Your task to perform on an android device: Open Youtube and go to the subscriptions tab Image 0: 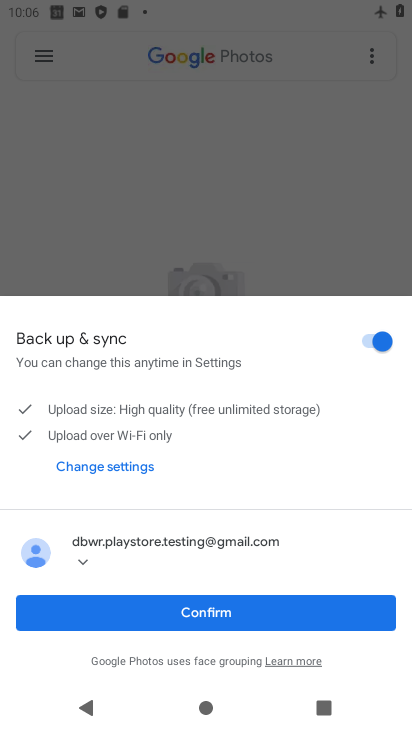
Step 0: press home button
Your task to perform on an android device: Open Youtube and go to the subscriptions tab Image 1: 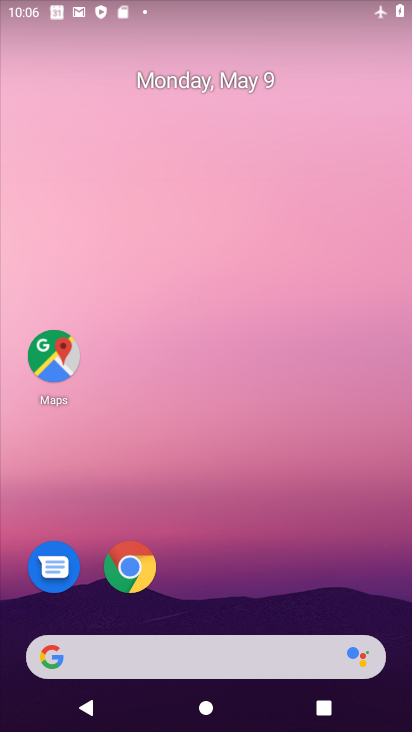
Step 1: drag from (200, 590) to (207, 193)
Your task to perform on an android device: Open Youtube and go to the subscriptions tab Image 2: 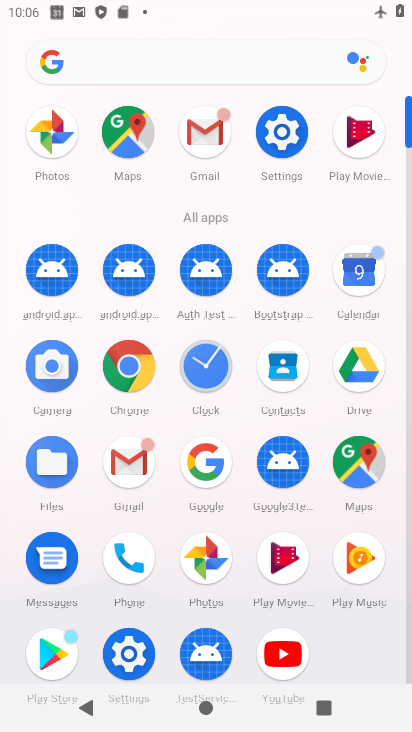
Step 2: click (279, 626)
Your task to perform on an android device: Open Youtube and go to the subscriptions tab Image 3: 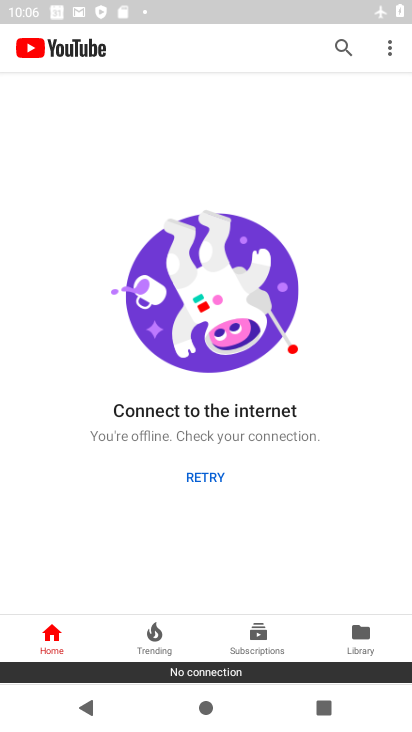
Step 3: click (268, 637)
Your task to perform on an android device: Open Youtube and go to the subscriptions tab Image 4: 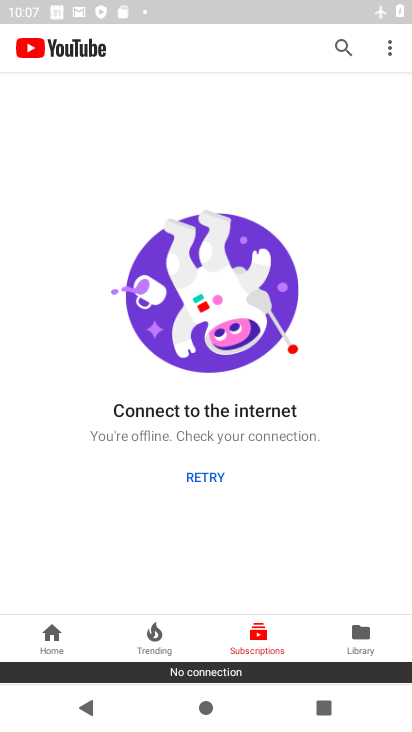
Step 4: task complete